Your task to perform on an android device: What's the weather? Image 0: 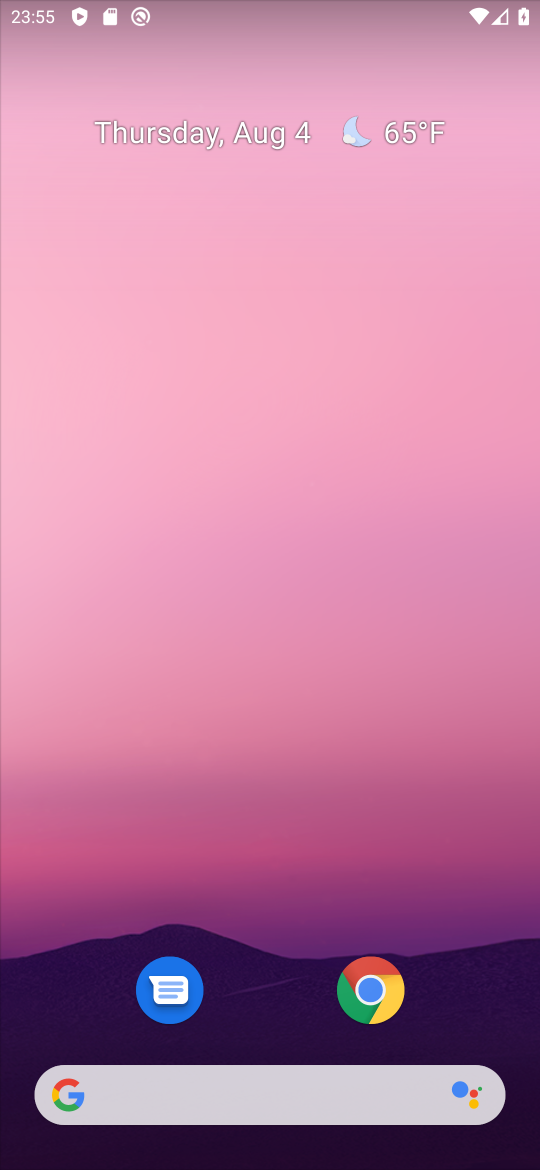
Step 0: click (372, 1006)
Your task to perform on an android device: What's the weather? Image 1: 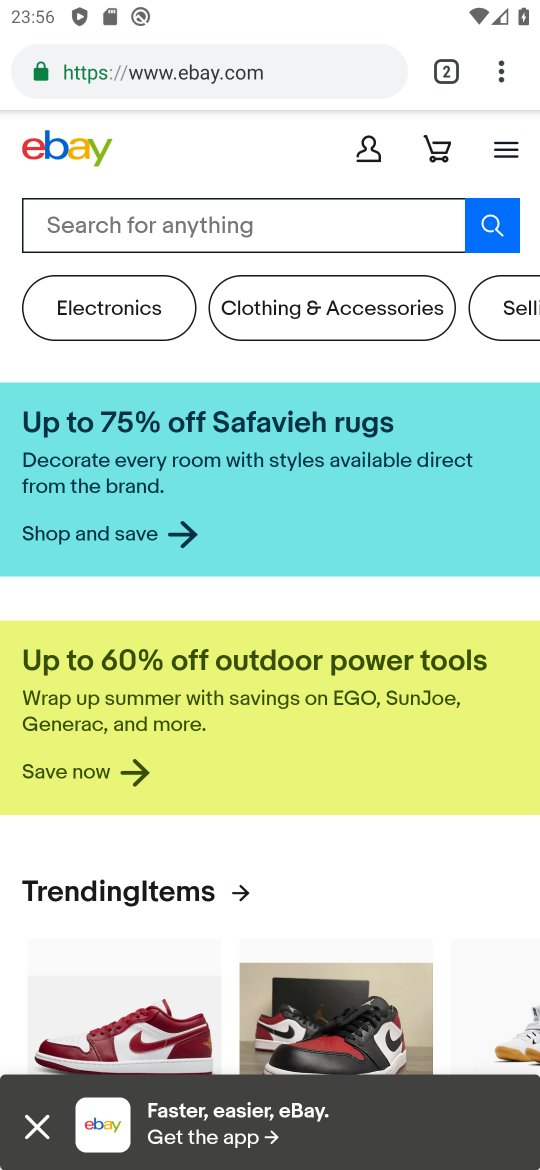
Step 1: click (256, 80)
Your task to perform on an android device: What's the weather? Image 2: 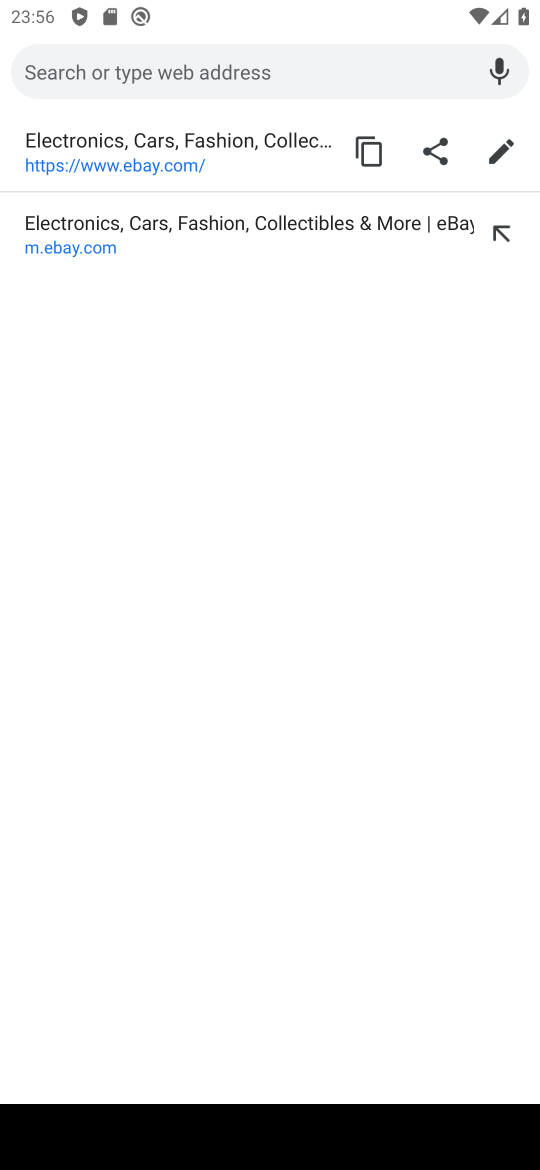
Step 2: click (256, 80)
Your task to perform on an android device: What's the weather? Image 3: 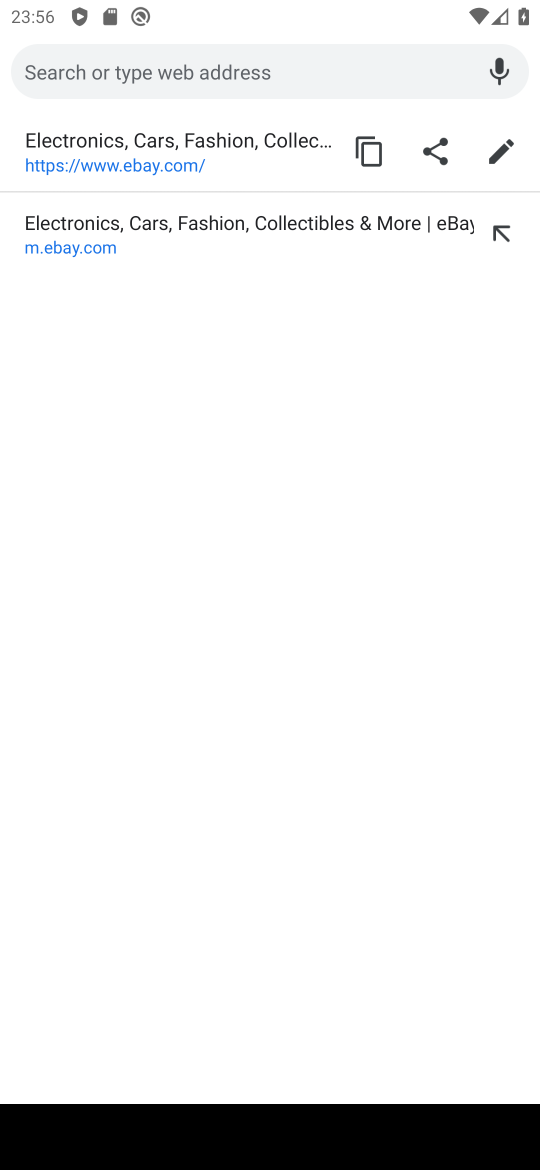
Step 3: type "What's the weather?"
Your task to perform on an android device: What's the weather? Image 4: 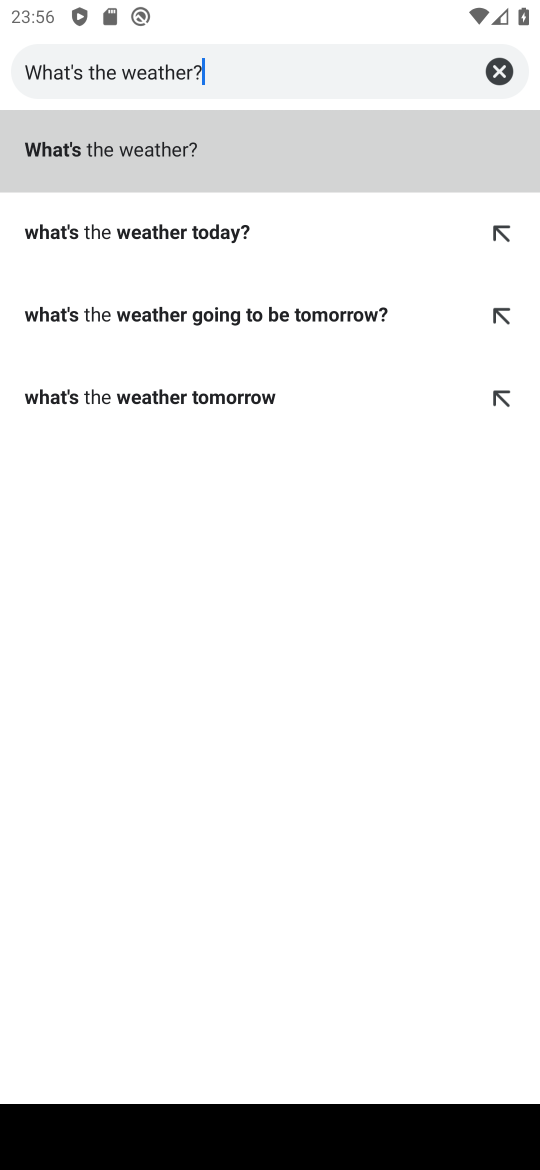
Step 4: click (187, 141)
Your task to perform on an android device: What's the weather? Image 5: 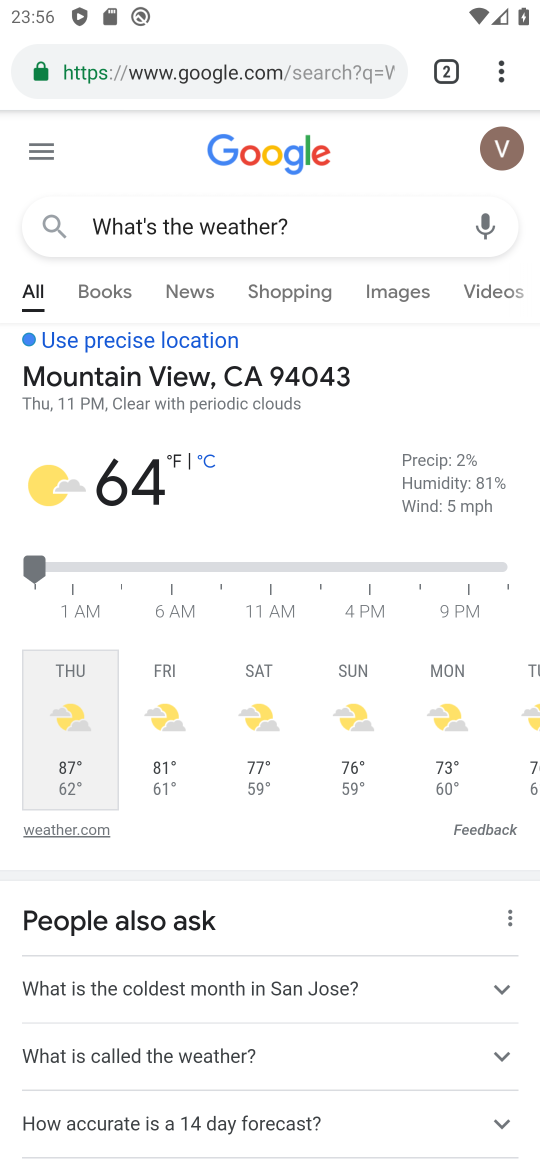
Step 5: task complete